Your task to perform on an android device: Go to eBay Image 0: 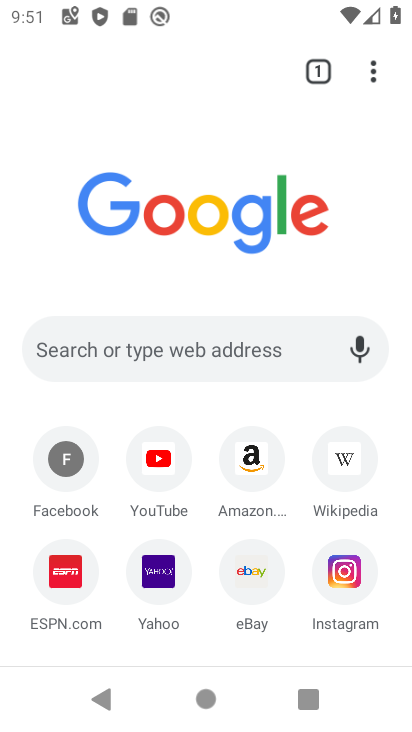
Step 0: press home button
Your task to perform on an android device: Go to eBay Image 1: 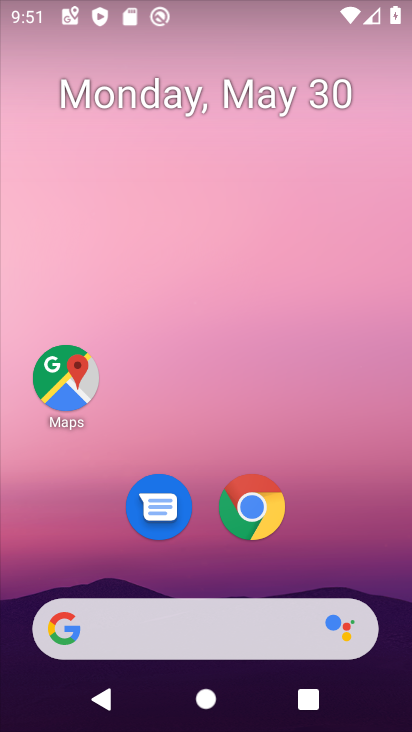
Step 1: click (249, 517)
Your task to perform on an android device: Go to eBay Image 2: 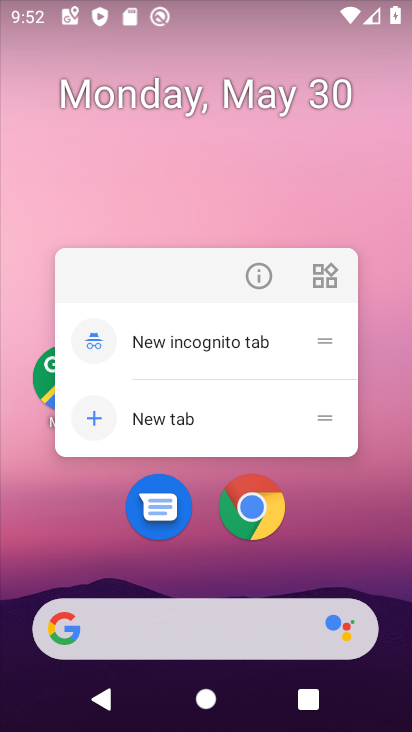
Step 2: click (262, 507)
Your task to perform on an android device: Go to eBay Image 3: 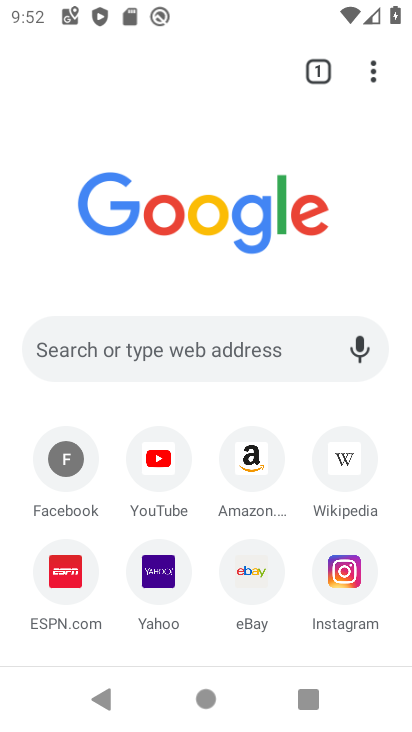
Step 3: click (266, 569)
Your task to perform on an android device: Go to eBay Image 4: 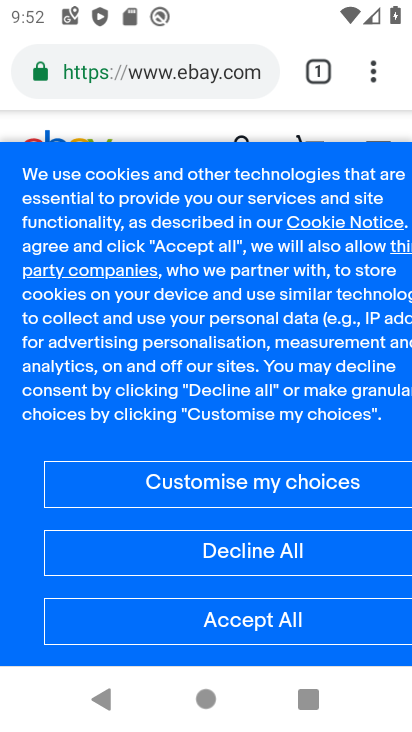
Step 4: click (283, 630)
Your task to perform on an android device: Go to eBay Image 5: 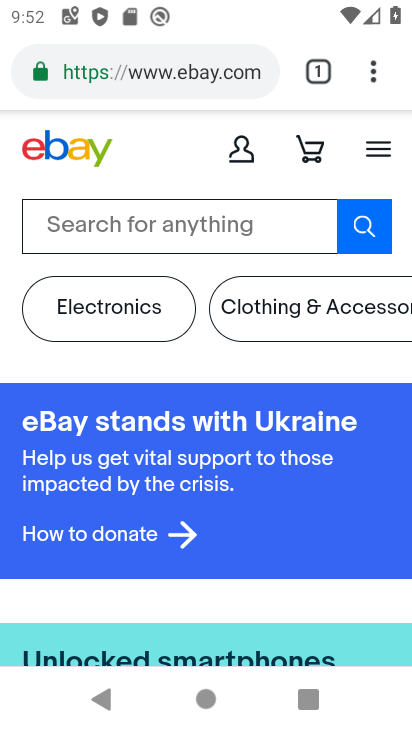
Step 5: task complete